Your task to perform on an android device: turn pop-ups off in chrome Image 0: 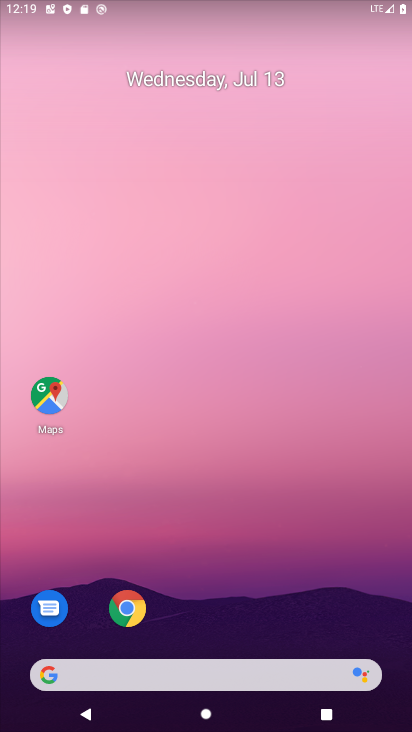
Step 0: click (117, 605)
Your task to perform on an android device: turn pop-ups off in chrome Image 1: 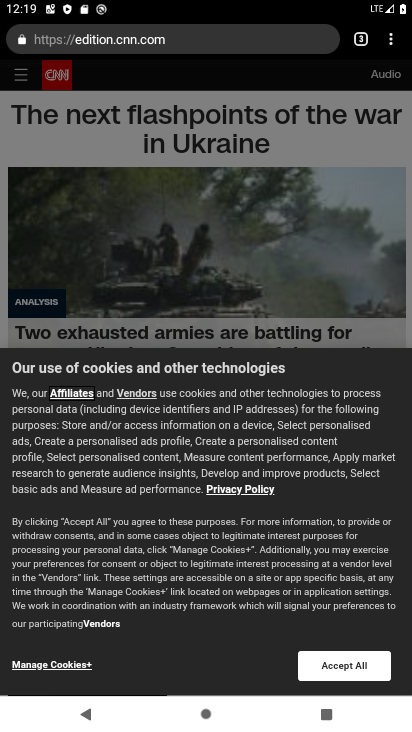
Step 1: drag from (394, 38) to (253, 479)
Your task to perform on an android device: turn pop-ups off in chrome Image 2: 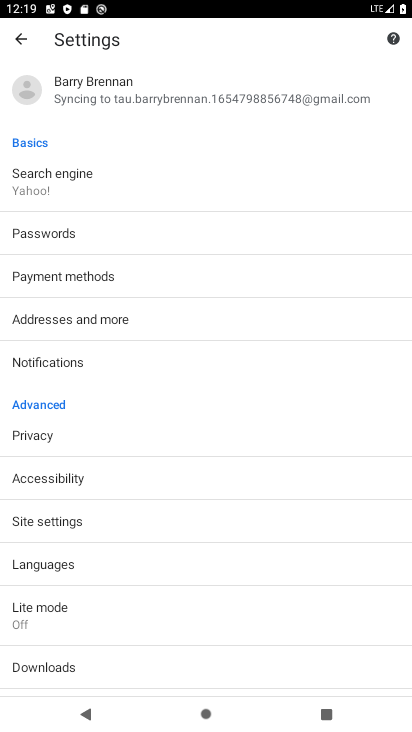
Step 2: click (150, 519)
Your task to perform on an android device: turn pop-ups off in chrome Image 3: 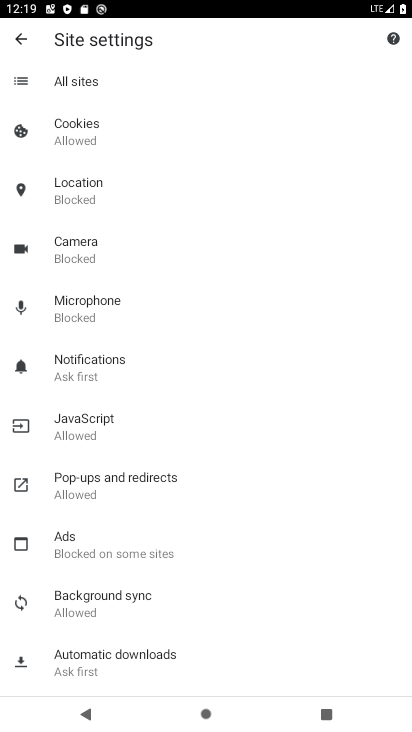
Step 3: click (108, 470)
Your task to perform on an android device: turn pop-ups off in chrome Image 4: 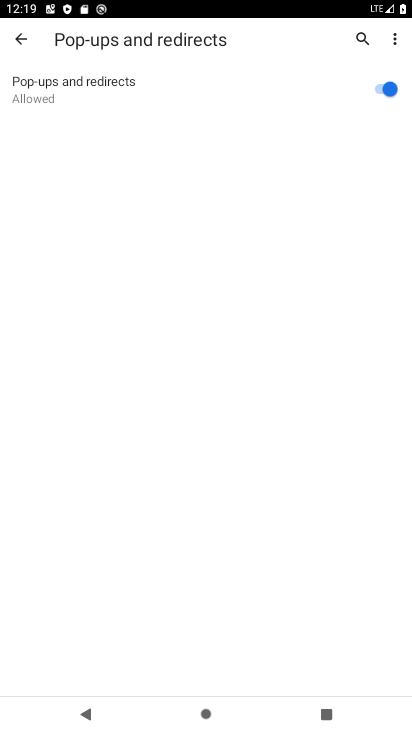
Step 4: click (388, 90)
Your task to perform on an android device: turn pop-ups off in chrome Image 5: 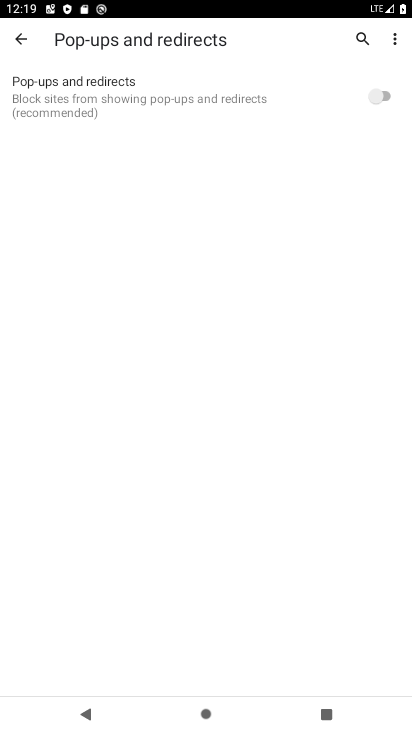
Step 5: task complete